Your task to perform on an android device: see tabs open on other devices in the chrome app Image 0: 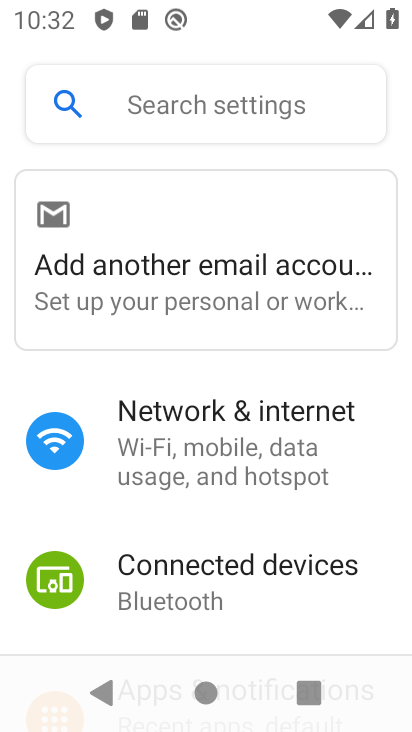
Step 0: press home button
Your task to perform on an android device: see tabs open on other devices in the chrome app Image 1: 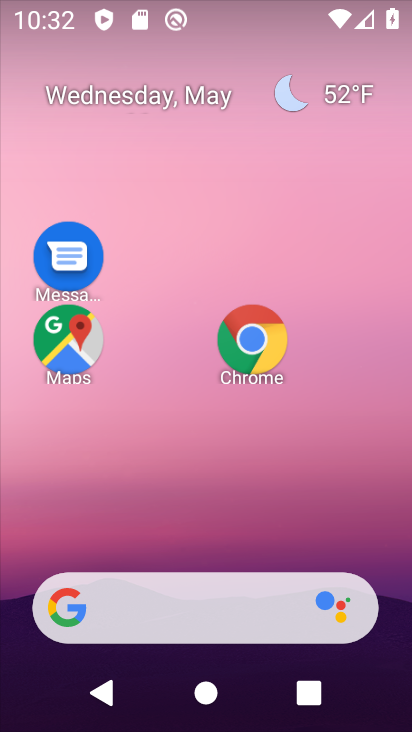
Step 1: click (261, 337)
Your task to perform on an android device: see tabs open on other devices in the chrome app Image 2: 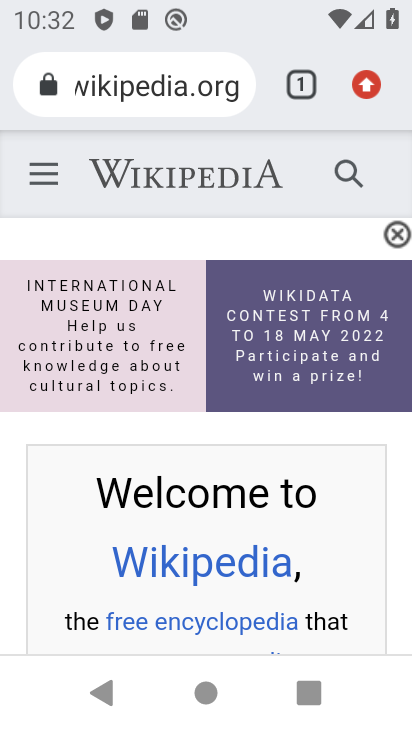
Step 2: click (298, 92)
Your task to perform on an android device: see tabs open on other devices in the chrome app Image 3: 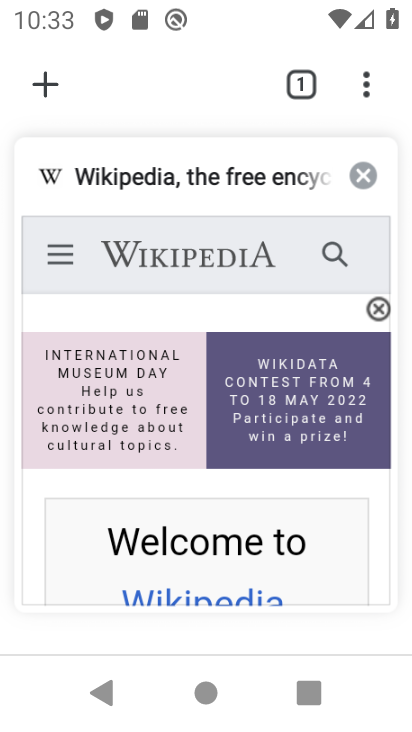
Step 3: task complete